Your task to perform on an android device: turn off picture-in-picture Image 0: 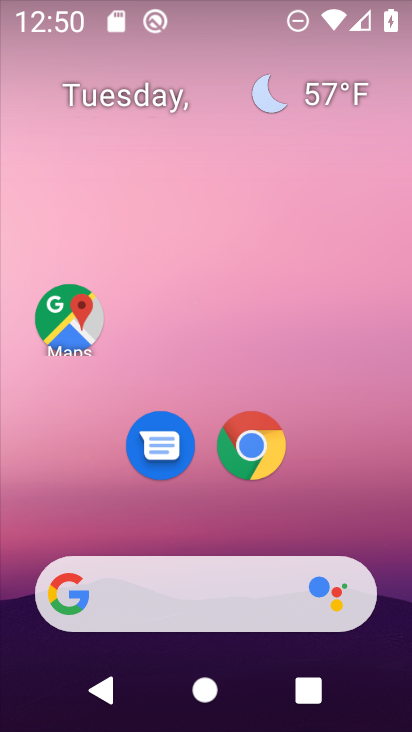
Step 0: drag from (393, 544) to (396, 205)
Your task to perform on an android device: turn off picture-in-picture Image 1: 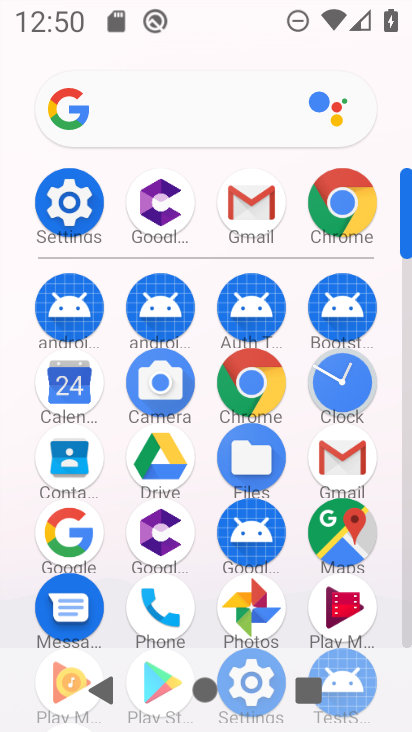
Step 1: click (70, 215)
Your task to perform on an android device: turn off picture-in-picture Image 2: 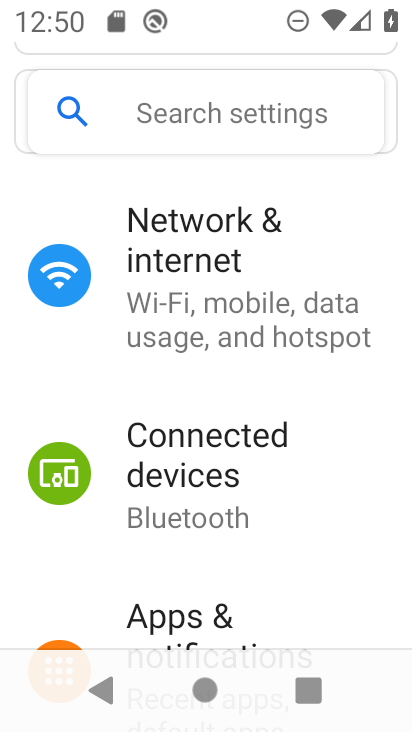
Step 2: drag from (374, 234) to (348, 420)
Your task to perform on an android device: turn off picture-in-picture Image 3: 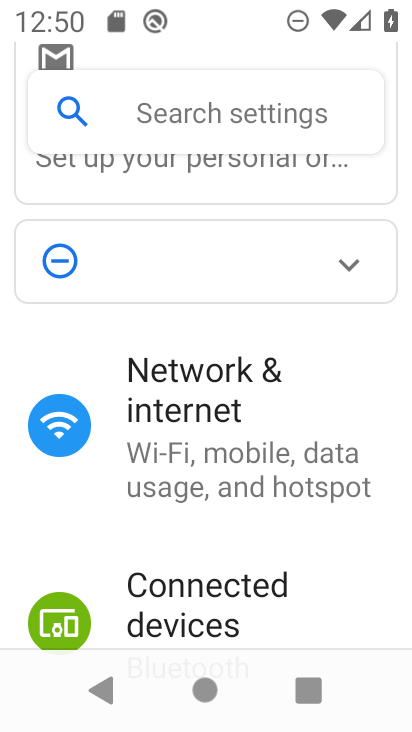
Step 3: drag from (382, 328) to (356, 490)
Your task to perform on an android device: turn off picture-in-picture Image 4: 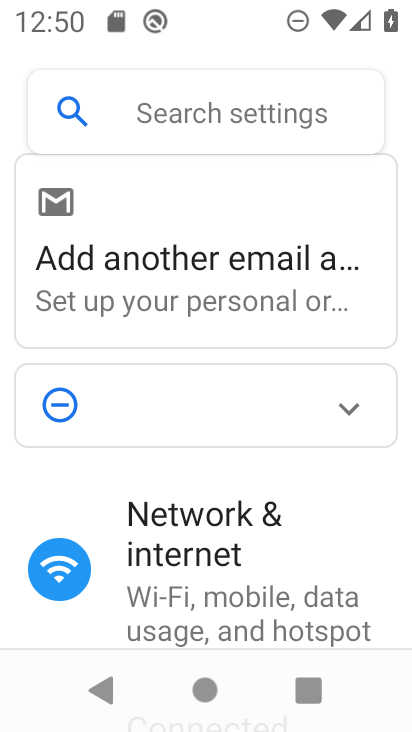
Step 4: drag from (351, 516) to (365, 341)
Your task to perform on an android device: turn off picture-in-picture Image 5: 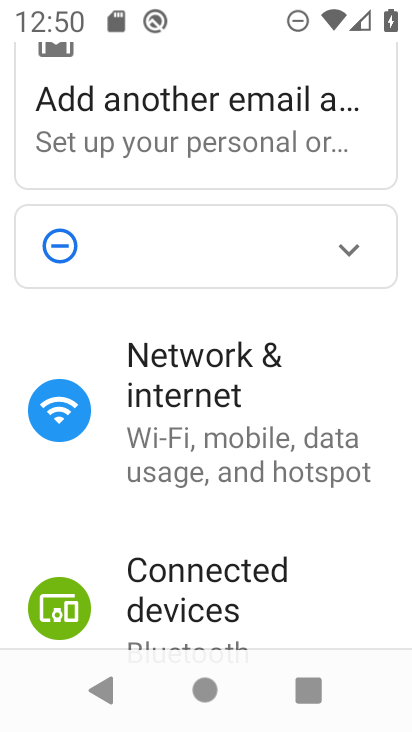
Step 5: drag from (356, 595) to (375, 443)
Your task to perform on an android device: turn off picture-in-picture Image 6: 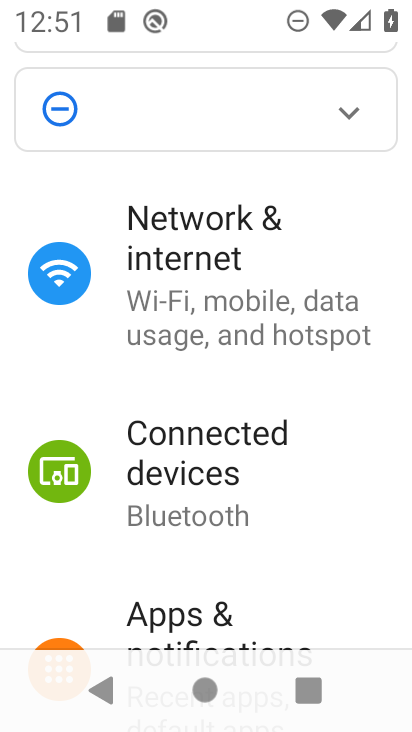
Step 6: drag from (354, 562) to (344, 435)
Your task to perform on an android device: turn off picture-in-picture Image 7: 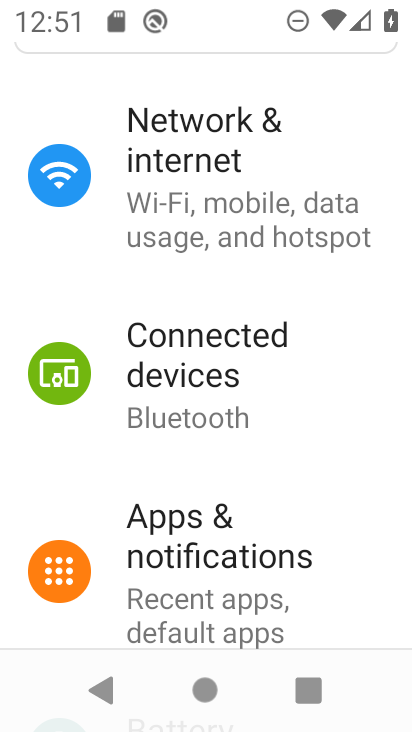
Step 7: drag from (357, 606) to (359, 474)
Your task to perform on an android device: turn off picture-in-picture Image 8: 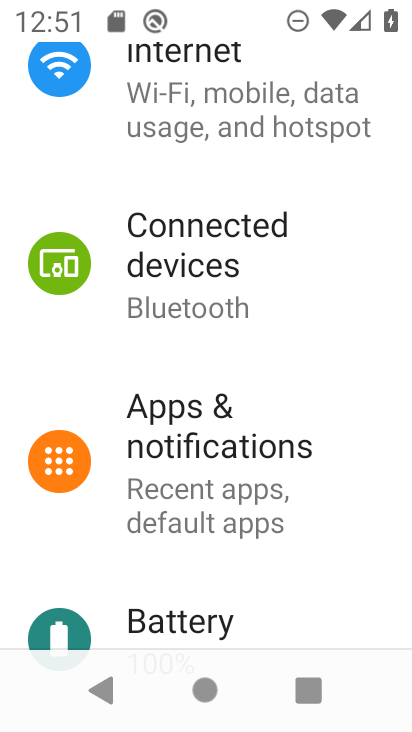
Step 8: drag from (354, 584) to (351, 451)
Your task to perform on an android device: turn off picture-in-picture Image 9: 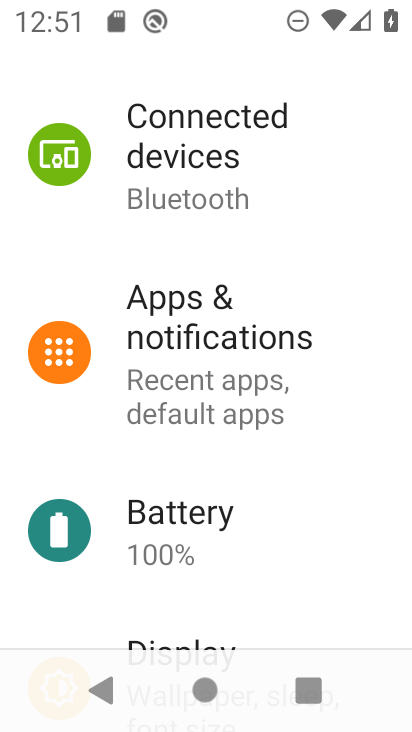
Step 9: drag from (351, 532) to (351, 404)
Your task to perform on an android device: turn off picture-in-picture Image 10: 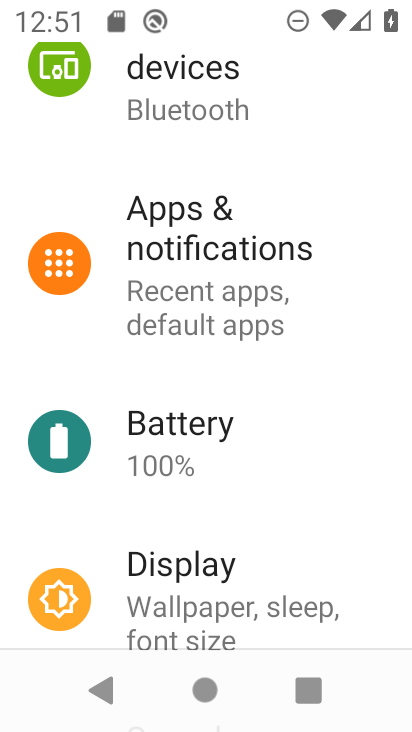
Step 10: drag from (360, 519) to (345, 399)
Your task to perform on an android device: turn off picture-in-picture Image 11: 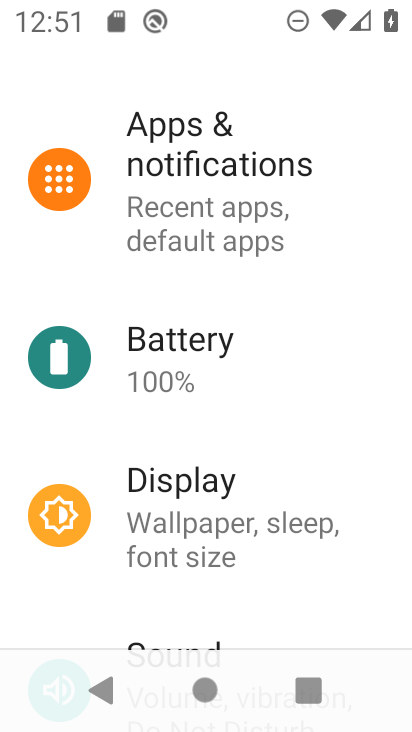
Step 11: drag from (363, 568) to (348, 446)
Your task to perform on an android device: turn off picture-in-picture Image 12: 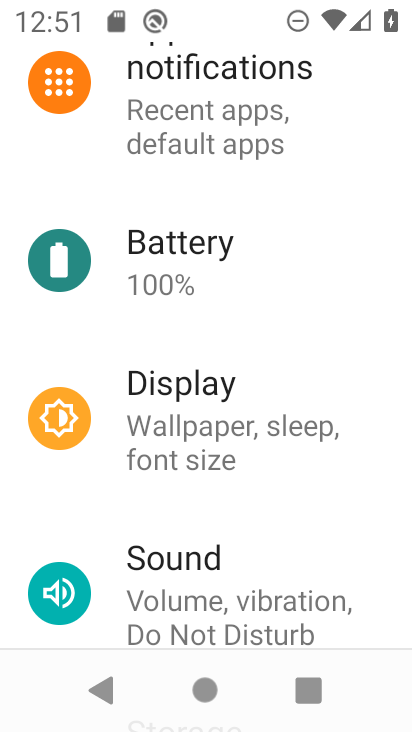
Step 12: drag from (326, 161) to (330, 311)
Your task to perform on an android device: turn off picture-in-picture Image 13: 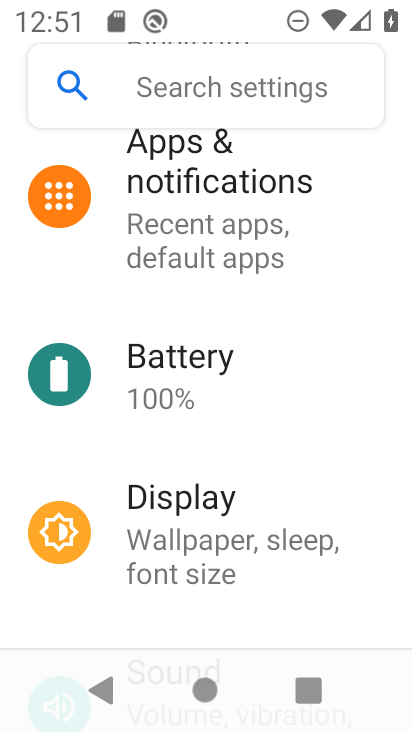
Step 13: click (238, 213)
Your task to perform on an android device: turn off picture-in-picture Image 14: 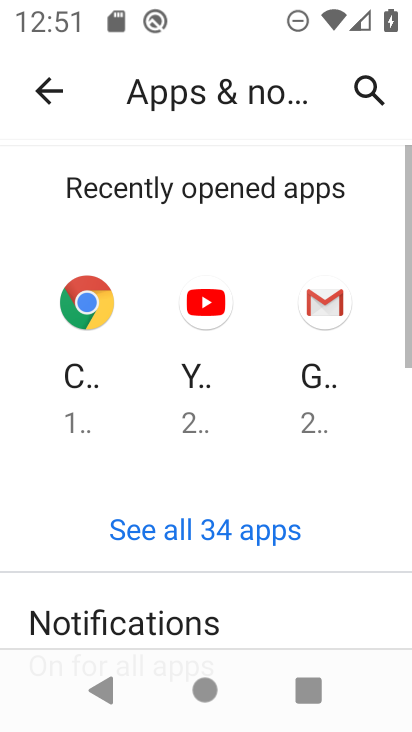
Step 14: drag from (333, 535) to (347, 339)
Your task to perform on an android device: turn off picture-in-picture Image 15: 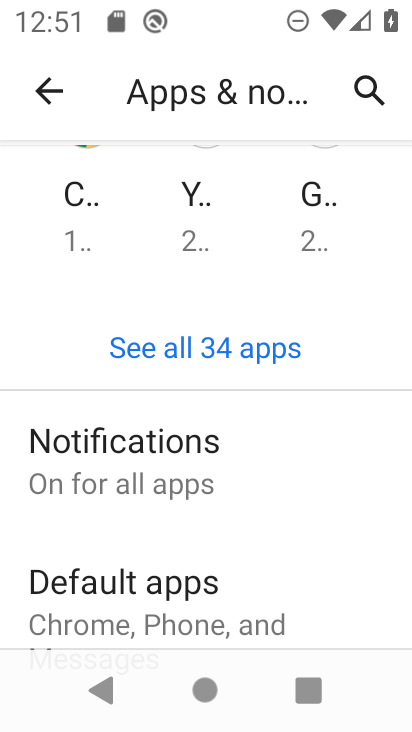
Step 15: drag from (327, 512) to (320, 352)
Your task to perform on an android device: turn off picture-in-picture Image 16: 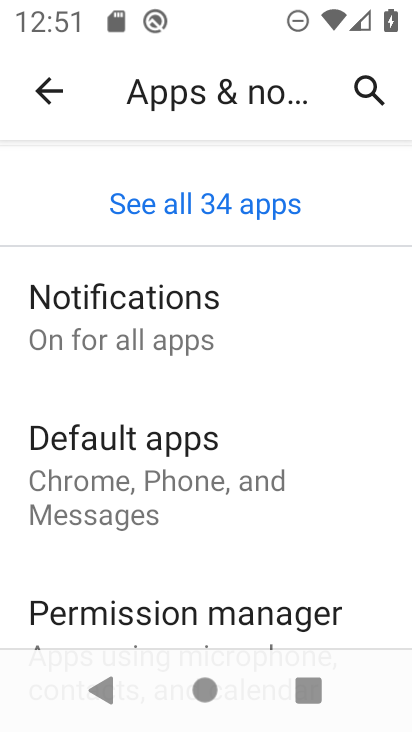
Step 16: drag from (308, 535) to (331, 223)
Your task to perform on an android device: turn off picture-in-picture Image 17: 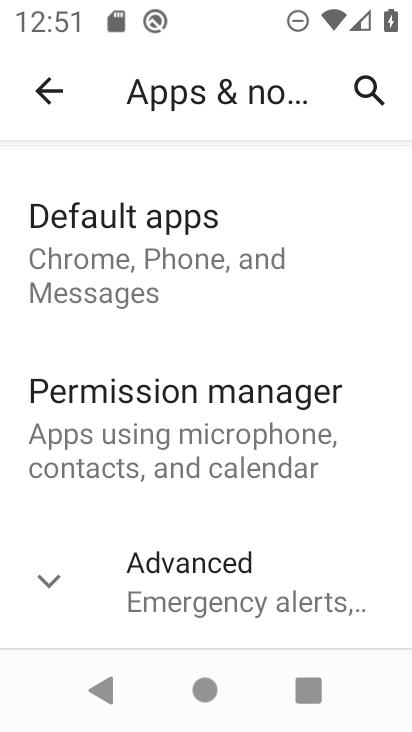
Step 17: click (274, 595)
Your task to perform on an android device: turn off picture-in-picture Image 18: 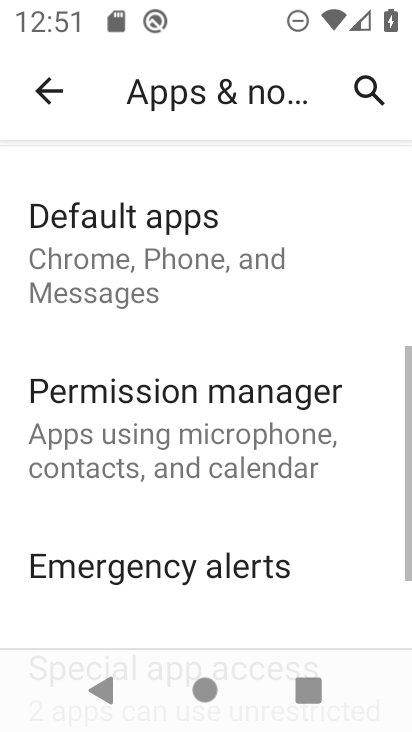
Step 18: drag from (316, 580) to (345, 311)
Your task to perform on an android device: turn off picture-in-picture Image 19: 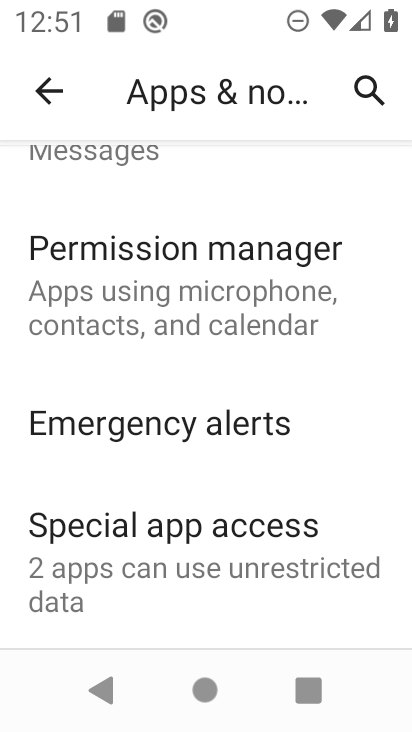
Step 19: click (296, 554)
Your task to perform on an android device: turn off picture-in-picture Image 20: 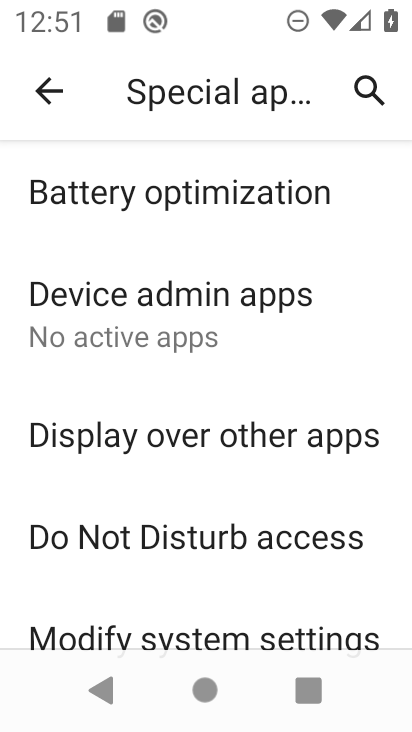
Step 20: drag from (326, 574) to (372, 327)
Your task to perform on an android device: turn off picture-in-picture Image 21: 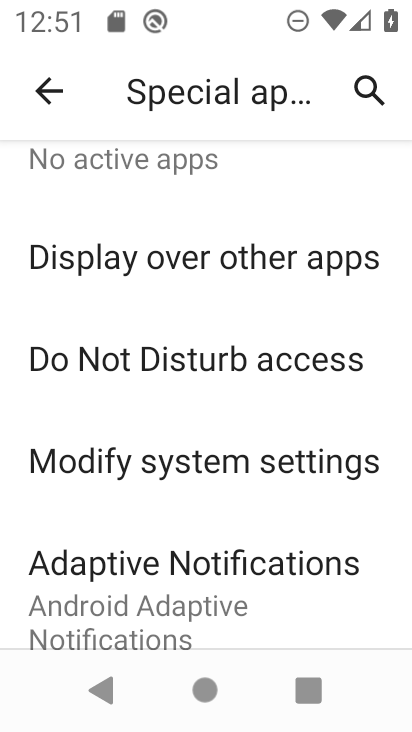
Step 21: drag from (379, 593) to (359, 407)
Your task to perform on an android device: turn off picture-in-picture Image 22: 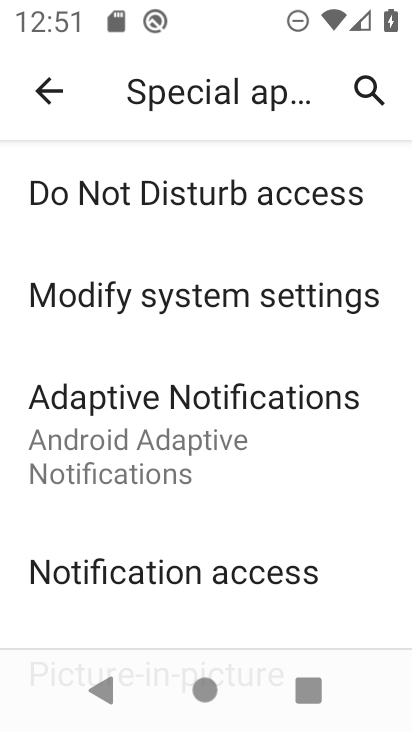
Step 22: drag from (357, 595) to (365, 441)
Your task to perform on an android device: turn off picture-in-picture Image 23: 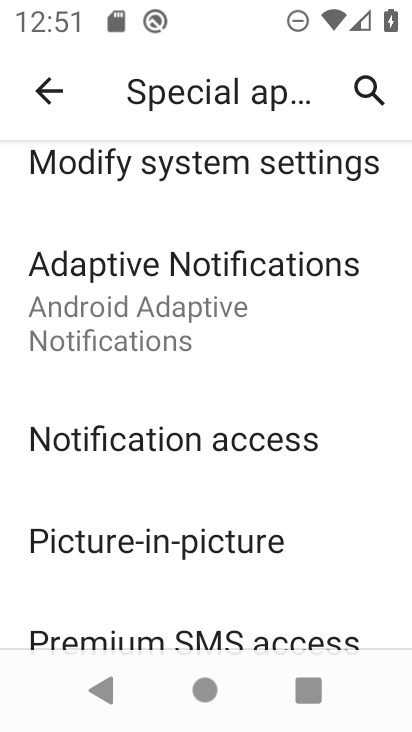
Step 23: drag from (348, 573) to (348, 393)
Your task to perform on an android device: turn off picture-in-picture Image 24: 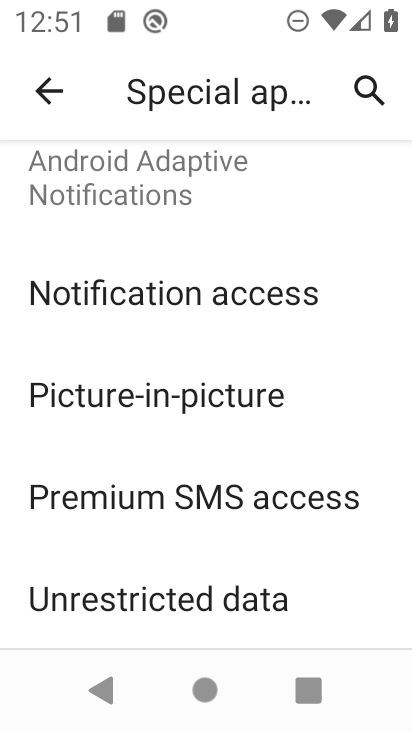
Step 24: drag from (356, 595) to (363, 395)
Your task to perform on an android device: turn off picture-in-picture Image 25: 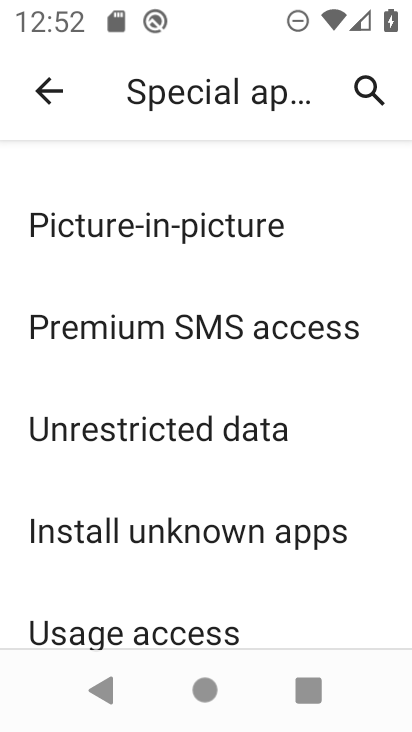
Step 25: click (215, 226)
Your task to perform on an android device: turn off picture-in-picture Image 26: 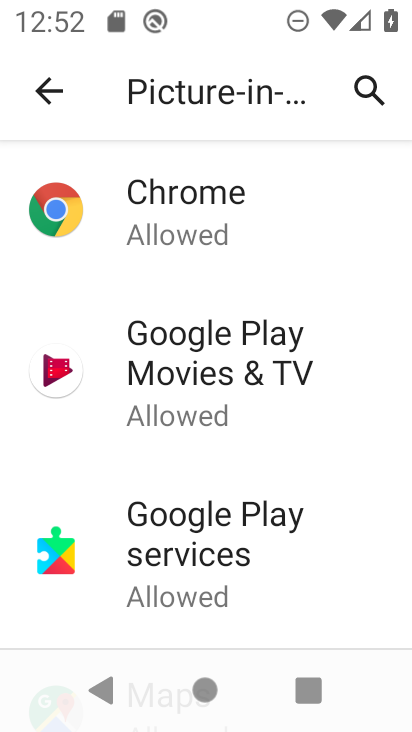
Step 26: drag from (334, 540) to (350, 337)
Your task to perform on an android device: turn off picture-in-picture Image 27: 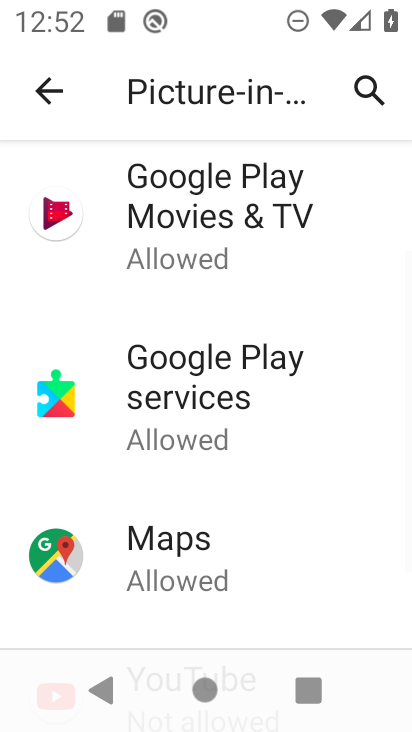
Step 27: drag from (352, 574) to (355, 382)
Your task to perform on an android device: turn off picture-in-picture Image 28: 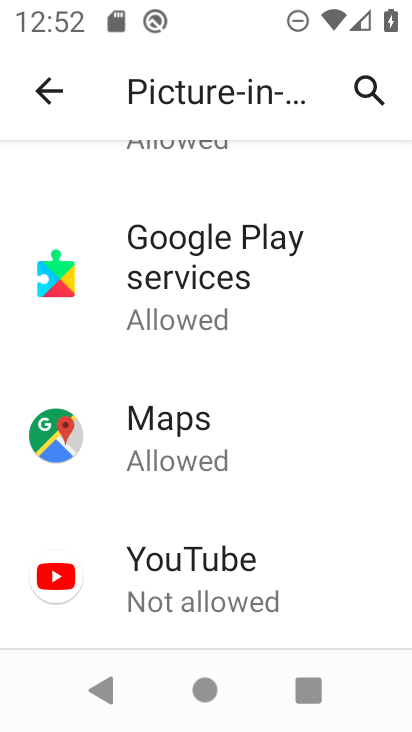
Step 28: click (253, 596)
Your task to perform on an android device: turn off picture-in-picture Image 29: 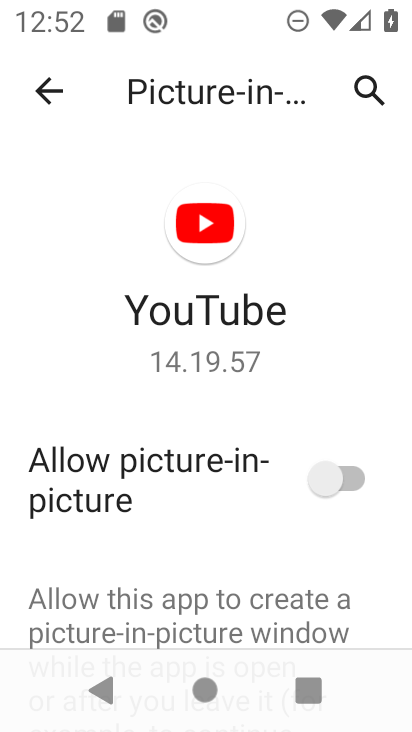
Step 29: task complete